Your task to perform on an android device: show emergency info Image 0: 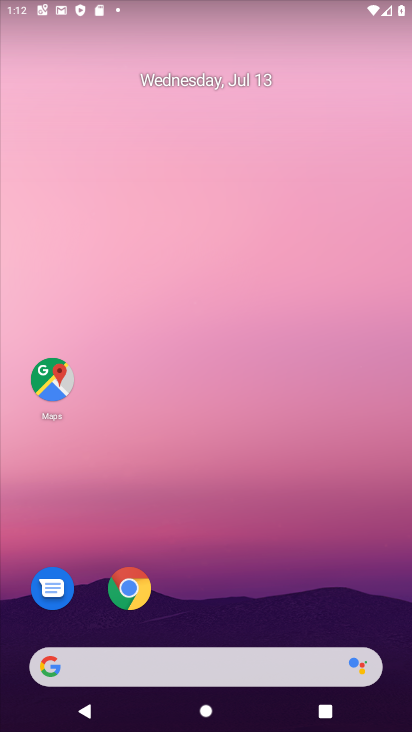
Step 0: press home button
Your task to perform on an android device: show emergency info Image 1: 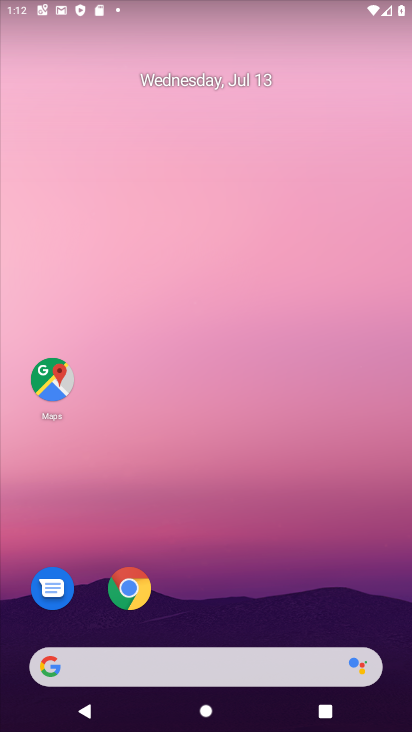
Step 1: drag from (293, 643) to (143, 254)
Your task to perform on an android device: show emergency info Image 2: 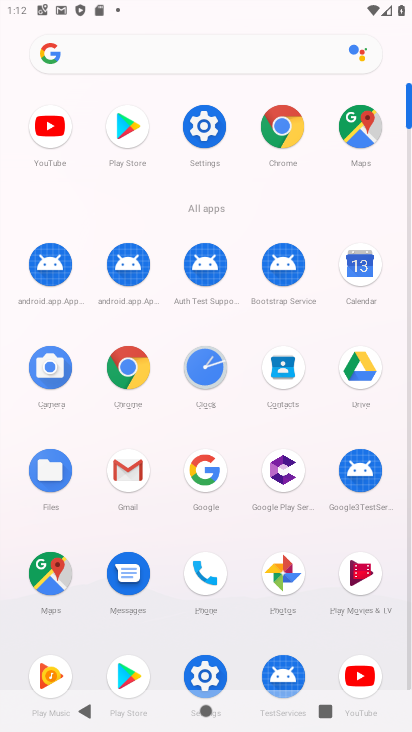
Step 2: click (213, 655)
Your task to perform on an android device: show emergency info Image 3: 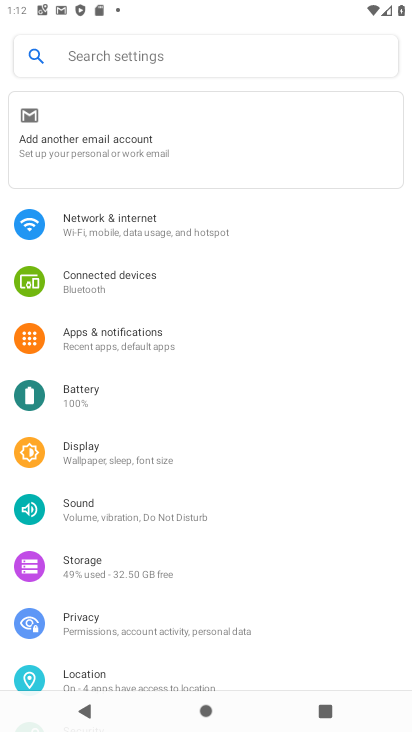
Step 3: drag from (157, 564) to (76, 292)
Your task to perform on an android device: show emergency info Image 4: 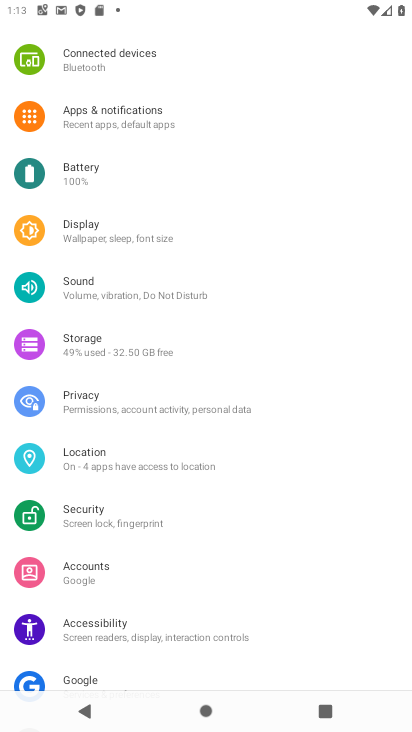
Step 4: drag from (98, 649) to (30, 259)
Your task to perform on an android device: show emergency info Image 5: 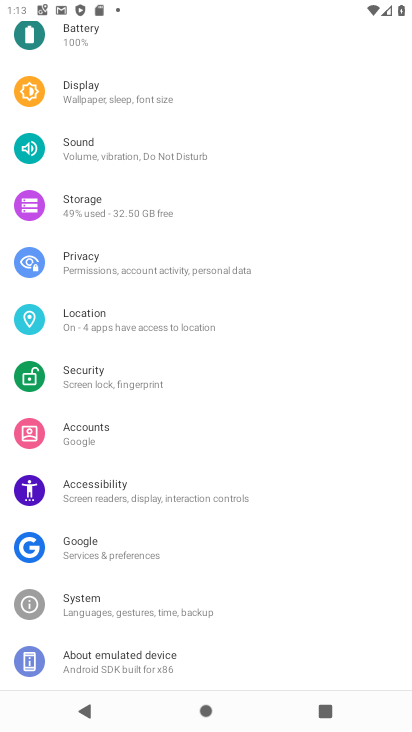
Step 5: click (123, 648)
Your task to perform on an android device: show emergency info Image 6: 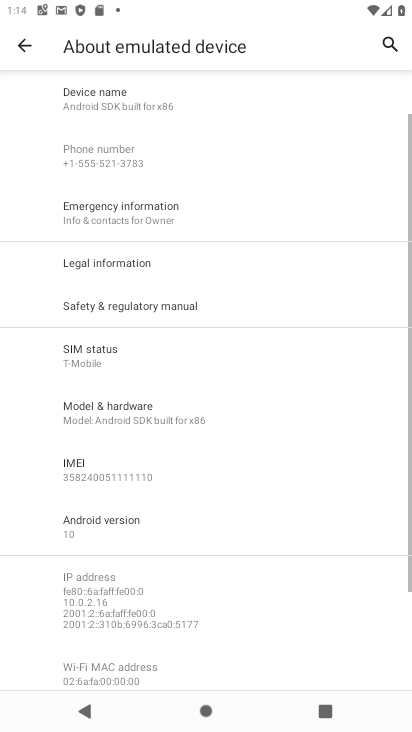
Step 6: click (168, 214)
Your task to perform on an android device: show emergency info Image 7: 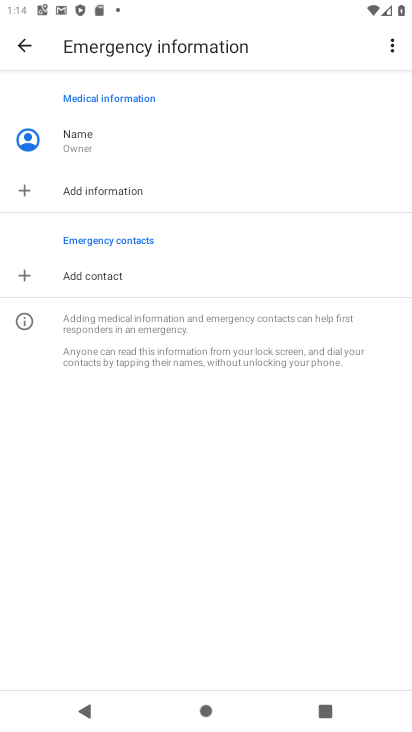
Step 7: task complete